Your task to perform on an android device: Search for sushi restaurants on Maps Image 0: 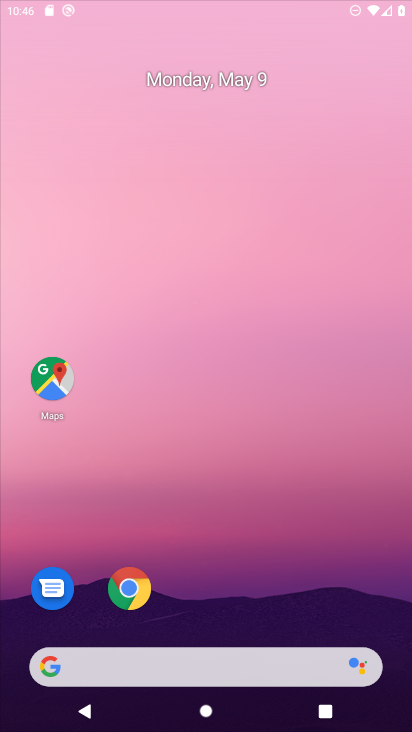
Step 0: click (147, 586)
Your task to perform on an android device: Search for sushi restaurants on Maps Image 1: 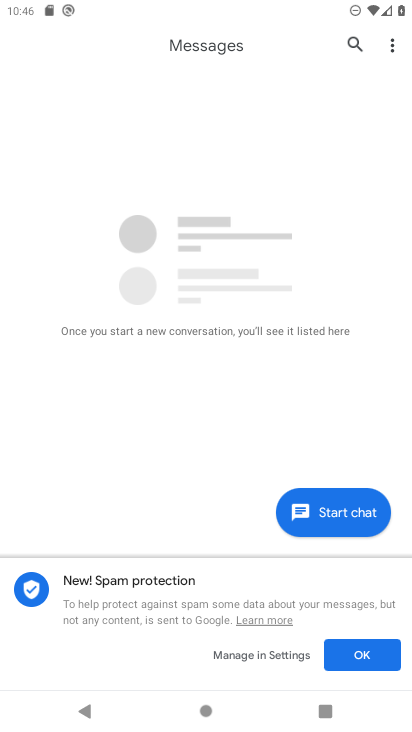
Step 1: click (362, 652)
Your task to perform on an android device: Search for sushi restaurants on Maps Image 2: 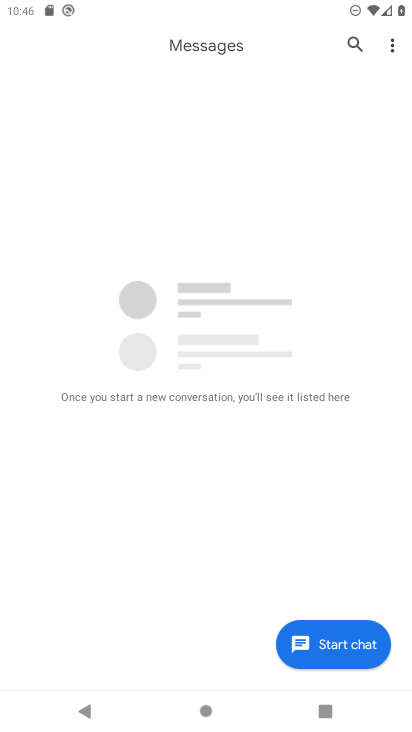
Step 2: press home button
Your task to perform on an android device: Search for sushi restaurants on Maps Image 3: 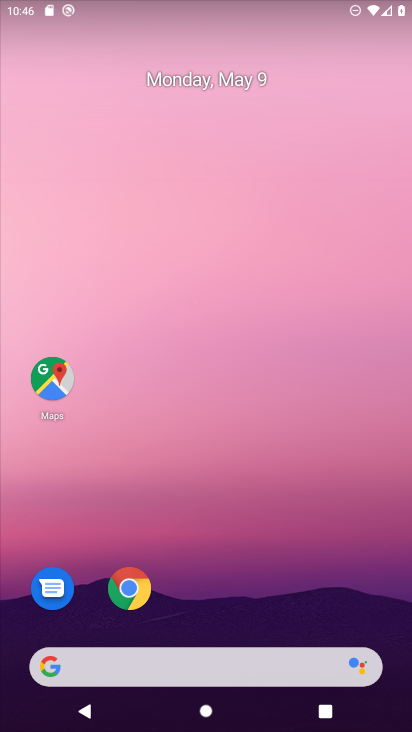
Step 3: click (52, 377)
Your task to perform on an android device: Search for sushi restaurants on Maps Image 4: 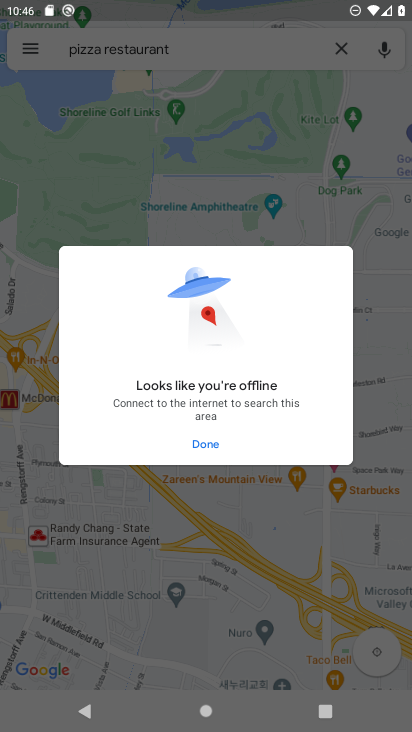
Step 4: click (210, 435)
Your task to perform on an android device: Search for sushi restaurants on Maps Image 5: 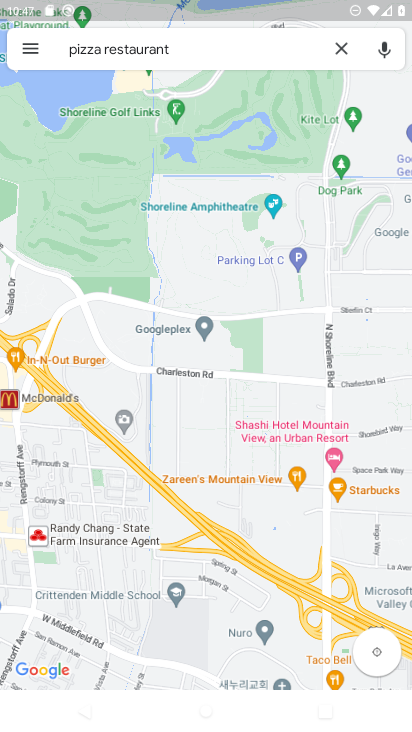
Step 5: click (328, 49)
Your task to perform on an android device: Search for sushi restaurants on Maps Image 6: 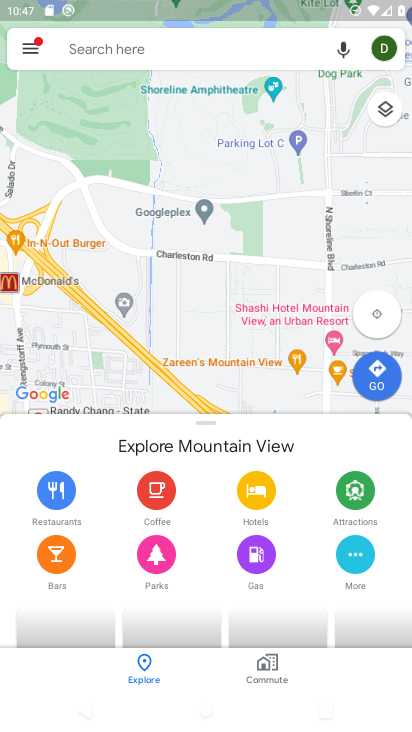
Step 6: click (249, 42)
Your task to perform on an android device: Search for sushi restaurants on Maps Image 7: 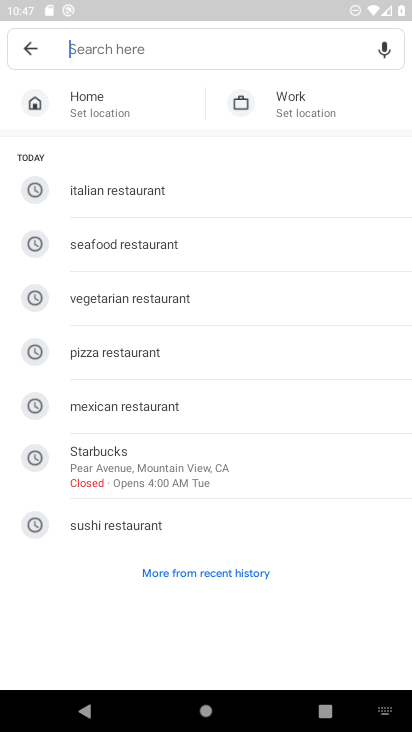
Step 7: type "sushi"
Your task to perform on an android device: Search for sushi restaurants on Maps Image 8: 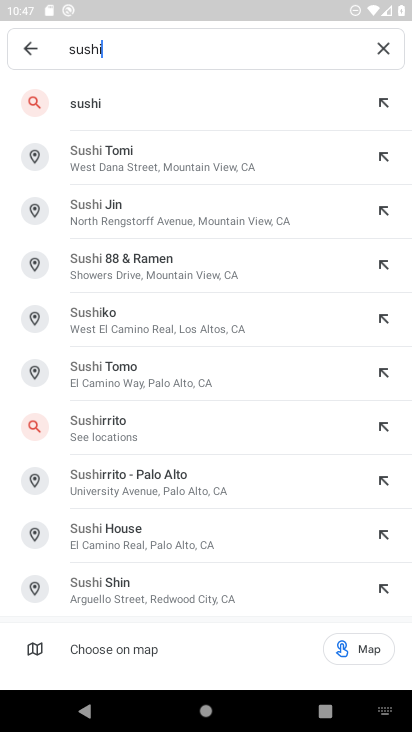
Step 8: click (216, 94)
Your task to perform on an android device: Search for sushi restaurants on Maps Image 9: 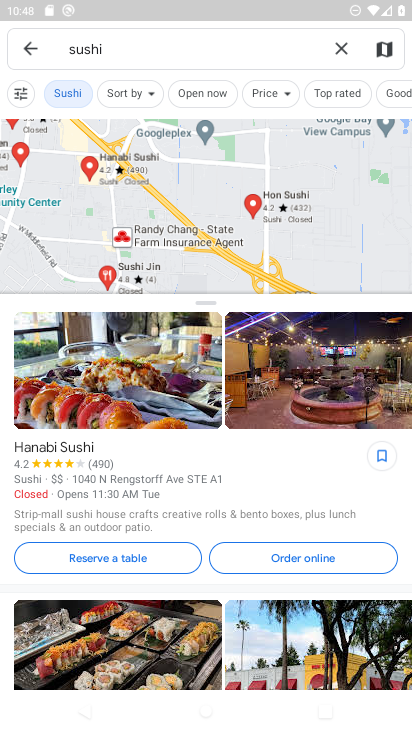
Step 9: task complete